Your task to perform on an android device: see tabs open on other devices in the chrome app Image 0: 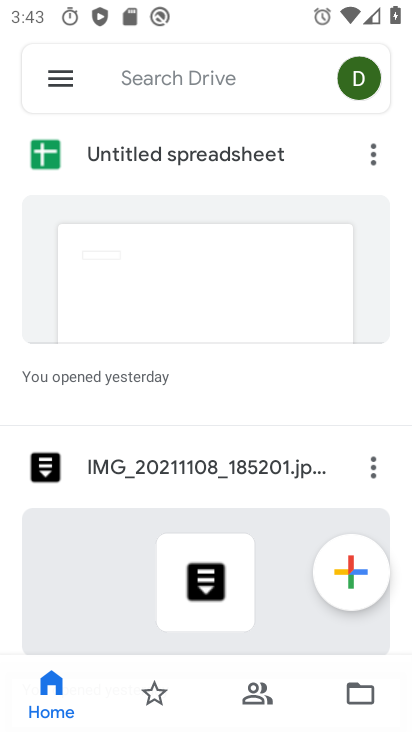
Step 0: press home button
Your task to perform on an android device: see tabs open on other devices in the chrome app Image 1: 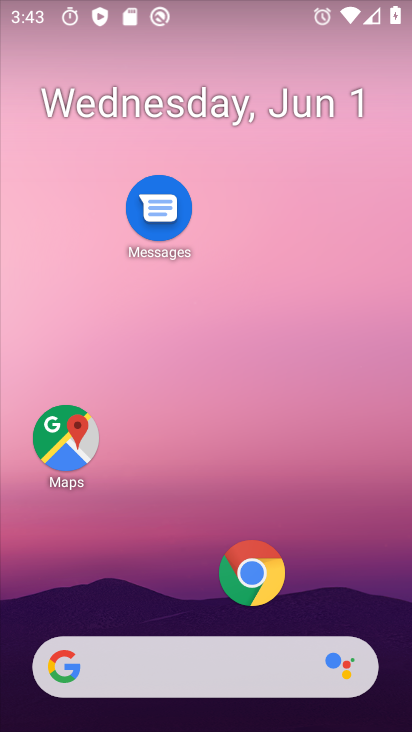
Step 1: click (241, 579)
Your task to perform on an android device: see tabs open on other devices in the chrome app Image 2: 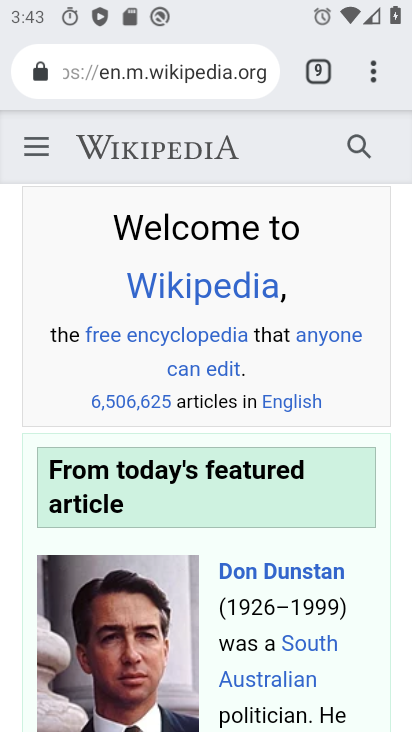
Step 2: task complete